Your task to perform on an android device: add a contact Image 0: 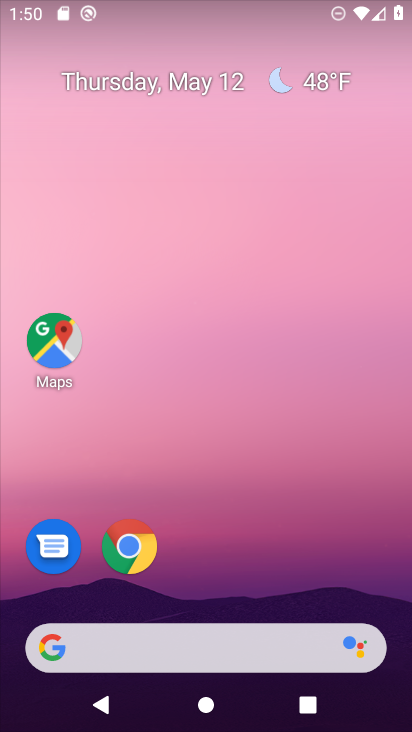
Step 0: drag from (243, 654) to (214, 261)
Your task to perform on an android device: add a contact Image 1: 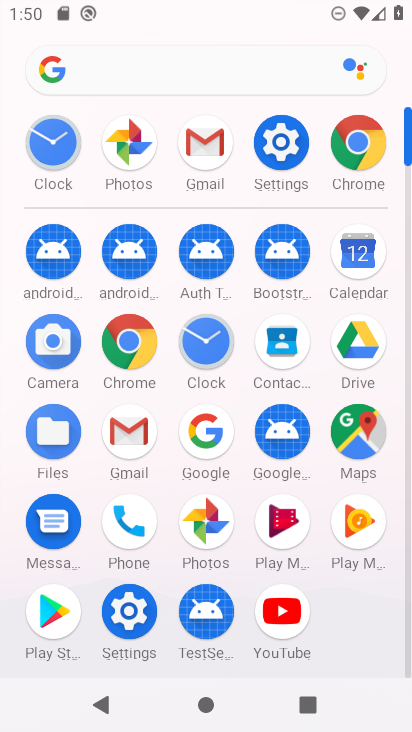
Step 1: click (141, 514)
Your task to perform on an android device: add a contact Image 2: 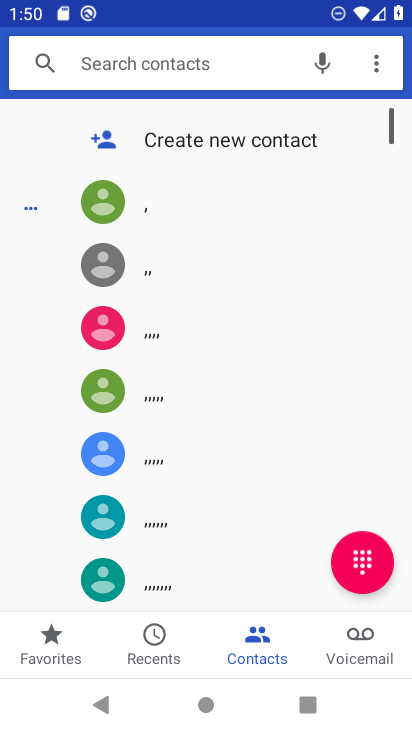
Step 2: click (176, 144)
Your task to perform on an android device: add a contact Image 3: 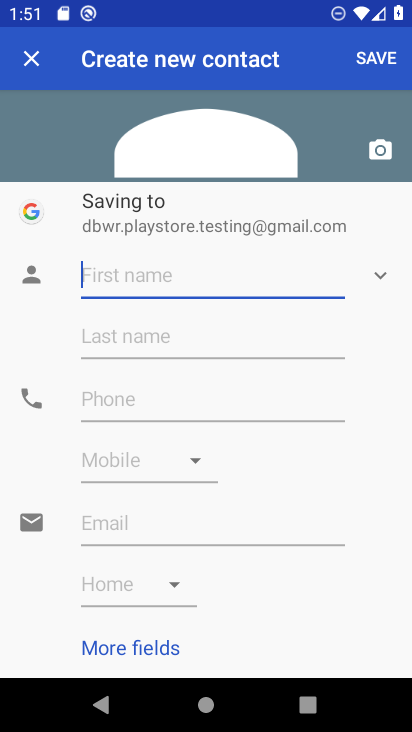
Step 3: click (142, 277)
Your task to perform on an android device: add a contact Image 4: 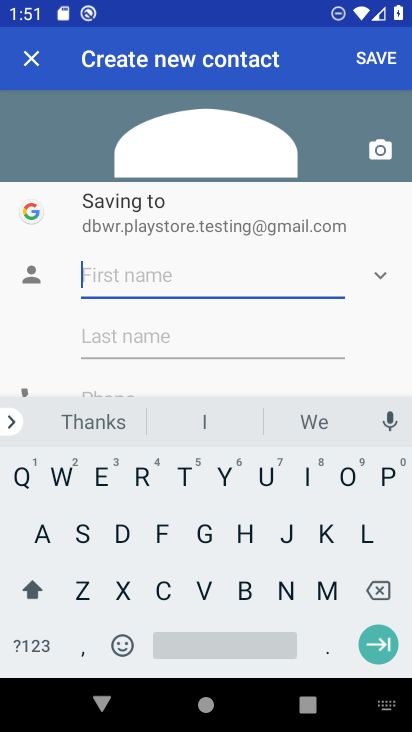
Step 4: click (175, 482)
Your task to perform on an android device: add a contact Image 5: 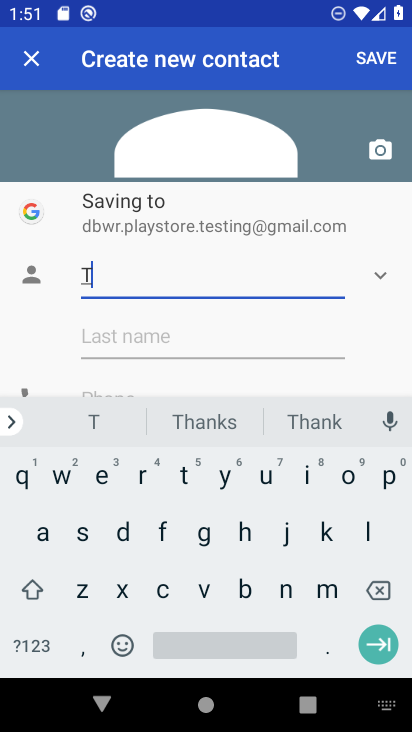
Step 5: click (170, 520)
Your task to perform on an android device: add a contact Image 6: 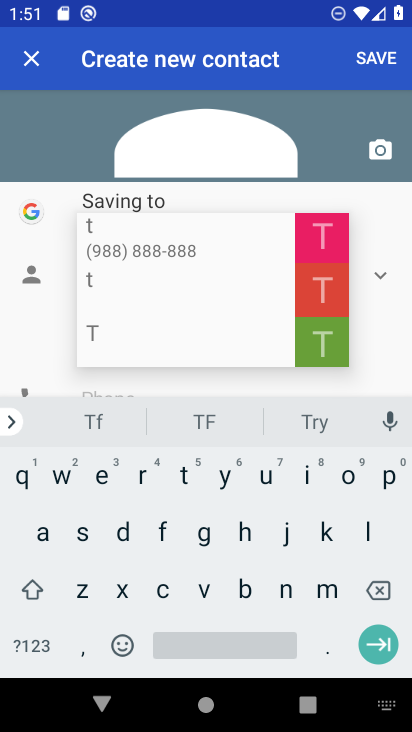
Step 6: click (131, 536)
Your task to perform on an android device: add a contact Image 7: 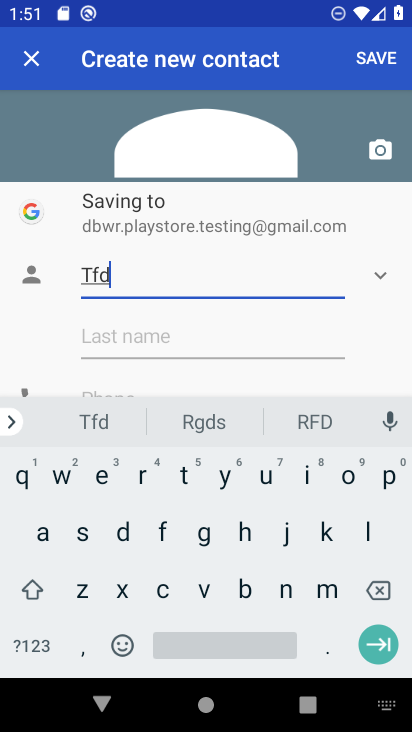
Step 7: drag from (240, 344) to (262, 274)
Your task to perform on an android device: add a contact Image 8: 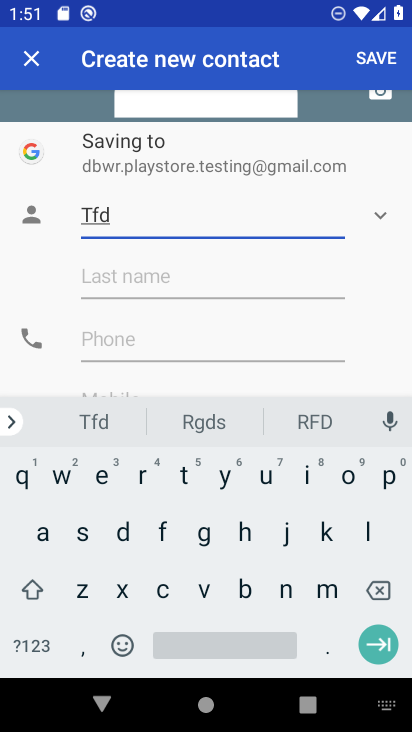
Step 8: click (187, 336)
Your task to perform on an android device: add a contact Image 9: 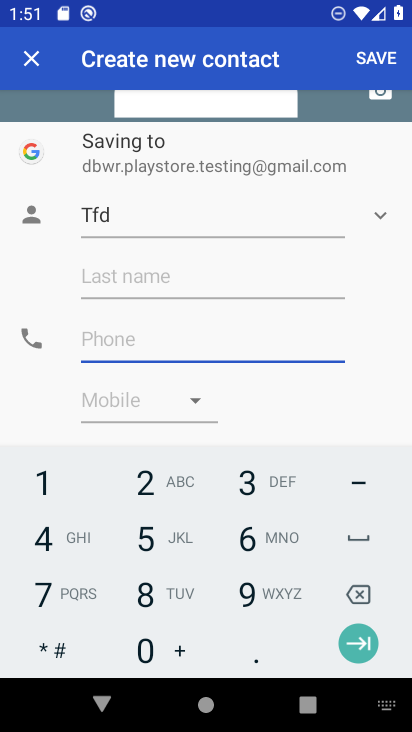
Step 9: click (248, 475)
Your task to perform on an android device: add a contact Image 10: 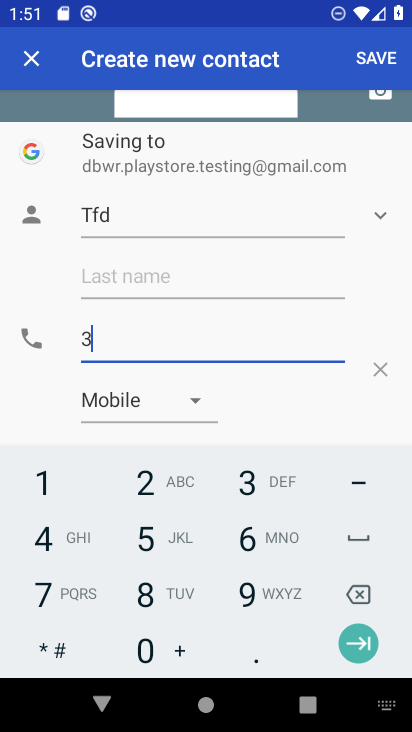
Step 10: click (187, 533)
Your task to perform on an android device: add a contact Image 11: 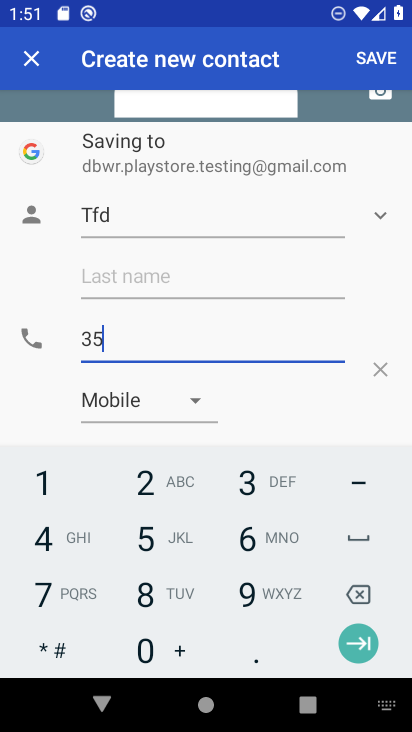
Step 11: click (163, 565)
Your task to perform on an android device: add a contact Image 12: 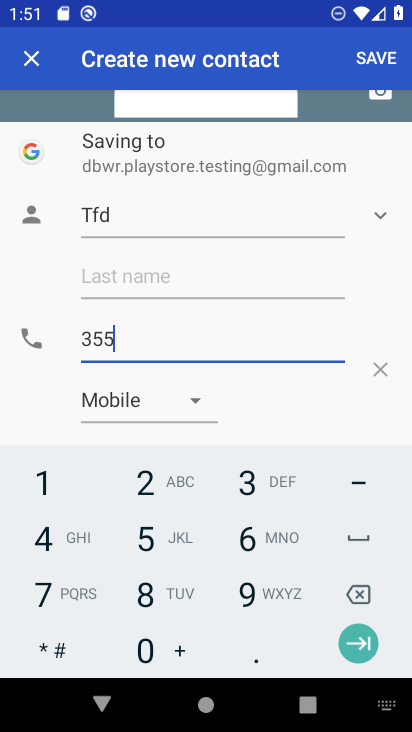
Step 12: click (46, 518)
Your task to perform on an android device: add a contact Image 13: 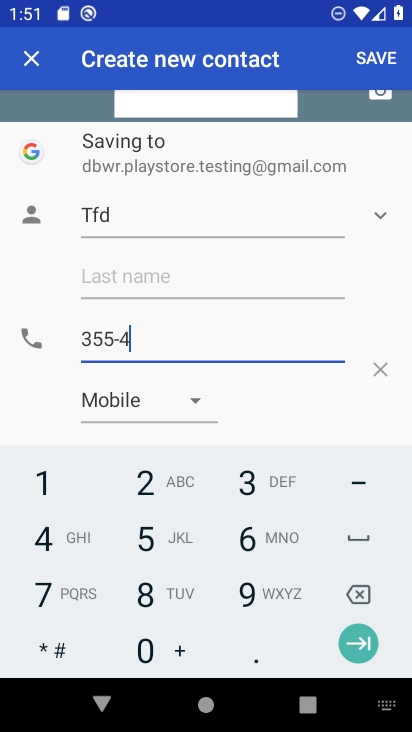
Step 13: click (261, 584)
Your task to perform on an android device: add a contact Image 14: 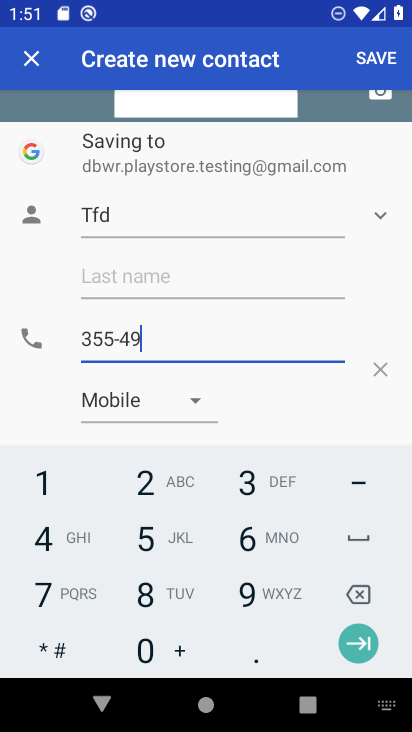
Step 14: click (161, 605)
Your task to perform on an android device: add a contact Image 15: 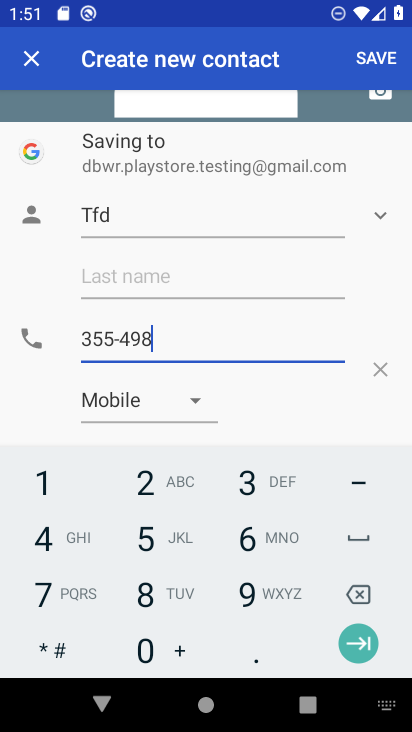
Step 15: click (52, 552)
Your task to perform on an android device: add a contact Image 16: 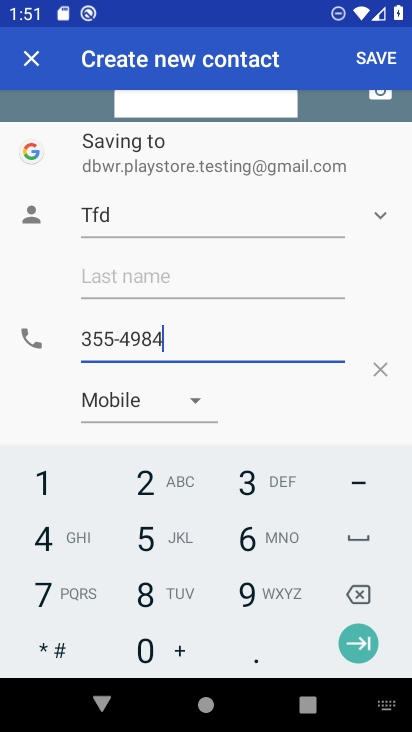
Step 16: click (366, 54)
Your task to perform on an android device: add a contact Image 17: 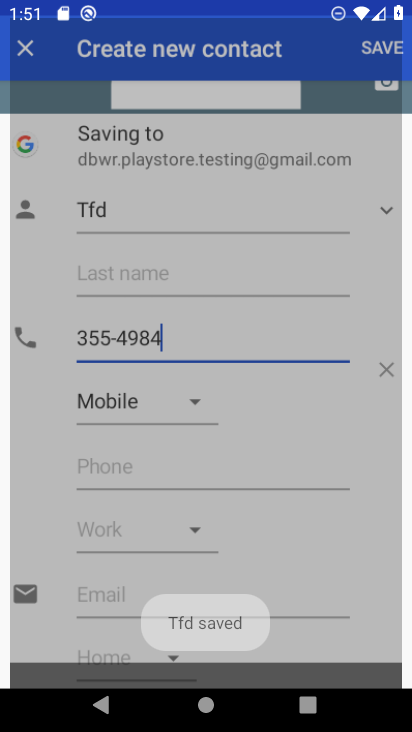
Step 17: task complete